Your task to perform on an android device: toggle airplane mode Image 0: 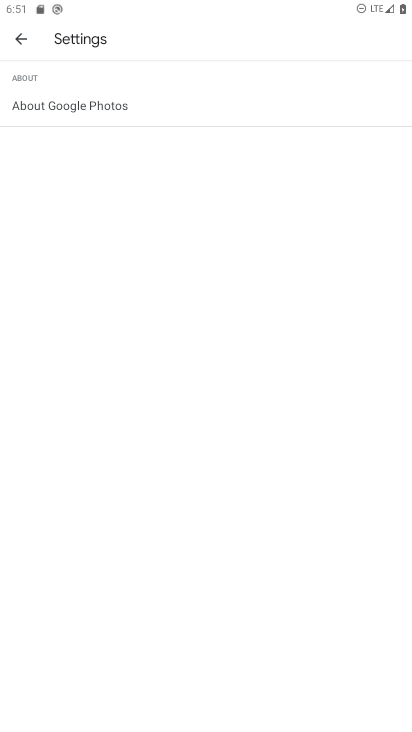
Step 0: press home button
Your task to perform on an android device: toggle airplane mode Image 1: 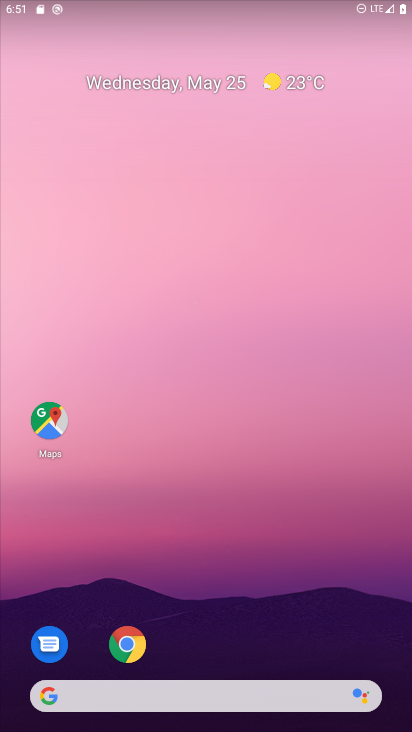
Step 1: drag from (254, 72) to (256, 521)
Your task to perform on an android device: toggle airplane mode Image 2: 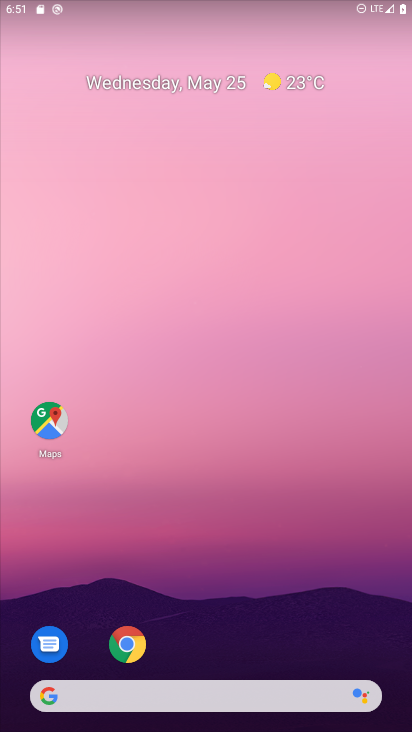
Step 2: drag from (323, 6) to (273, 582)
Your task to perform on an android device: toggle airplane mode Image 3: 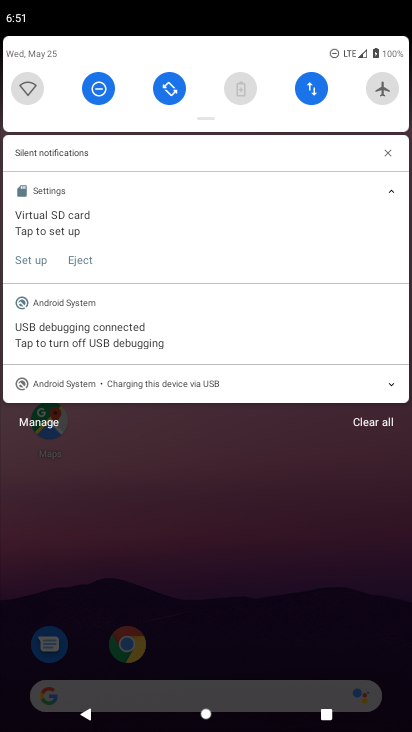
Step 3: click (380, 96)
Your task to perform on an android device: toggle airplane mode Image 4: 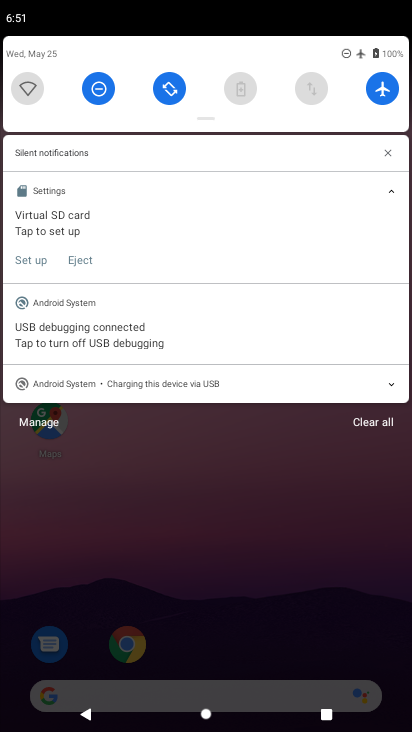
Step 4: task complete